Your task to perform on an android device: Add logitech g pro to the cart on amazon.com, then select checkout. Image 0: 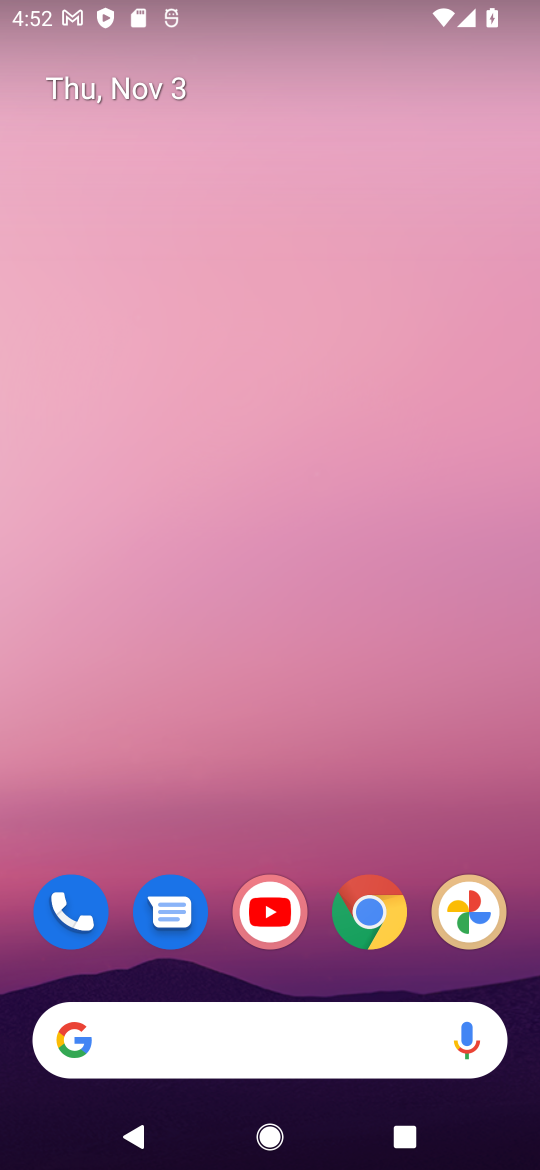
Step 0: click (385, 917)
Your task to perform on an android device: Add logitech g pro to the cart on amazon.com, then select checkout. Image 1: 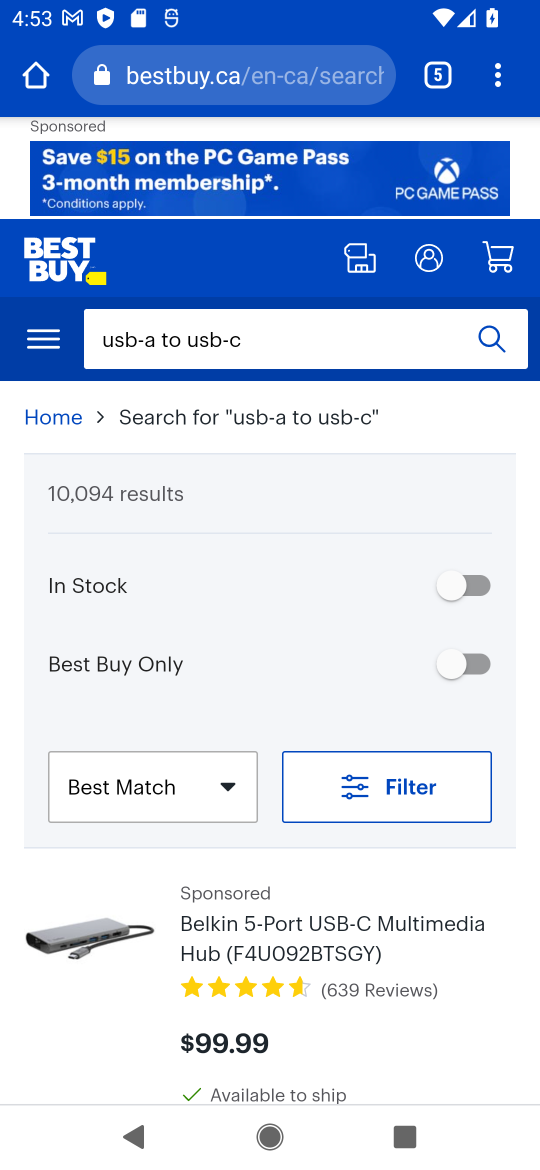
Step 1: click (427, 78)
Your task to perform on an android device: Add logitech g pro to the cart on amazon.com, then select checkout. Image 2: 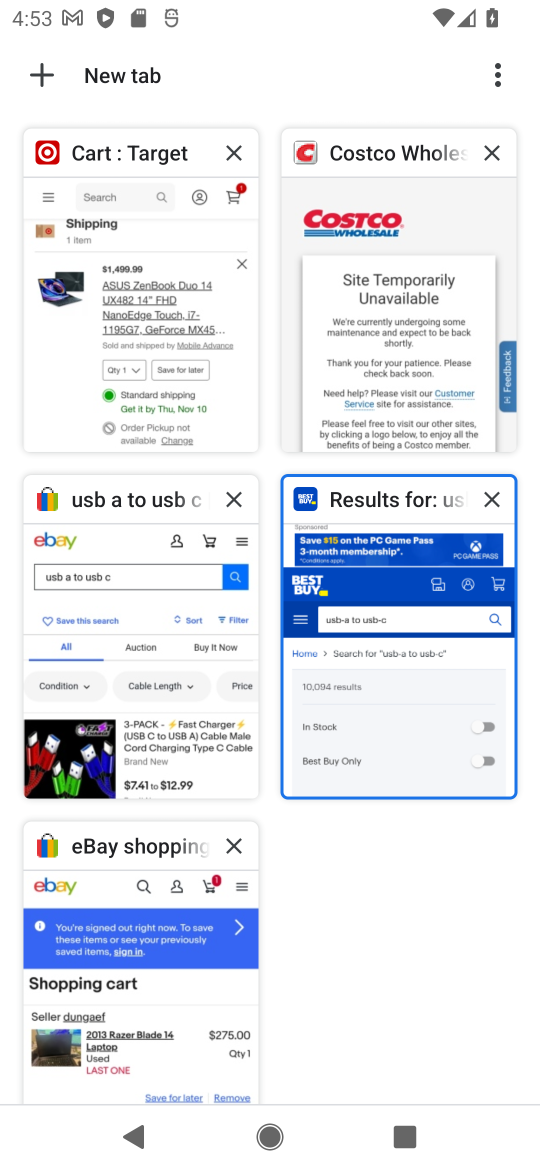
Step 2: click (49, 68)
Your task to perform on an android device: Add logitech g pro to the cart on amazon.com, then select checkout. Image 3: 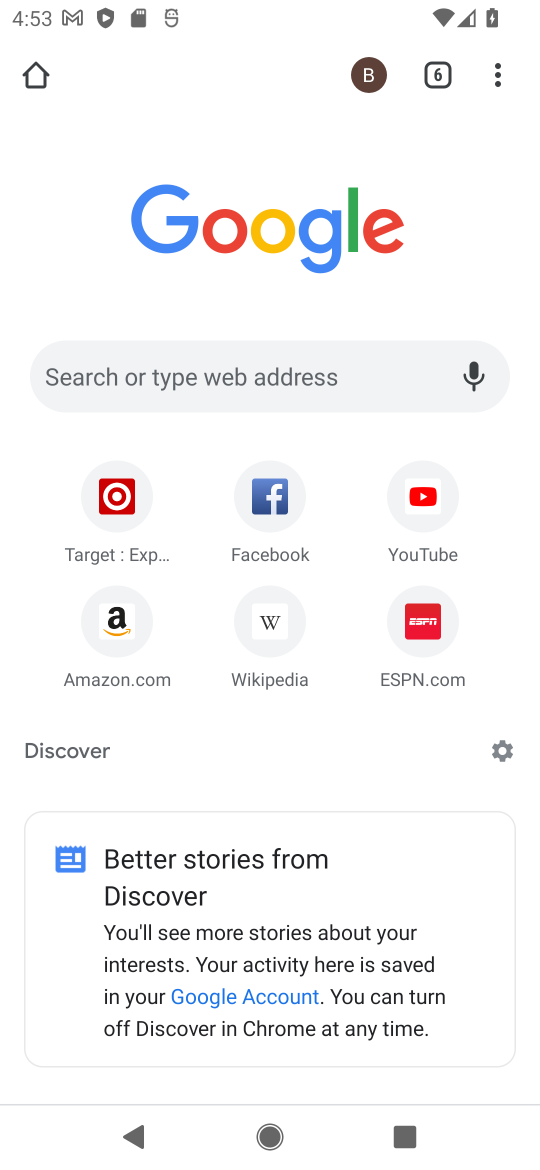
Step 3: click (205, 395)
Your task to perform on an android device: Add logitech g pro to the cart on amazon.com, then select checkout. Image 4: 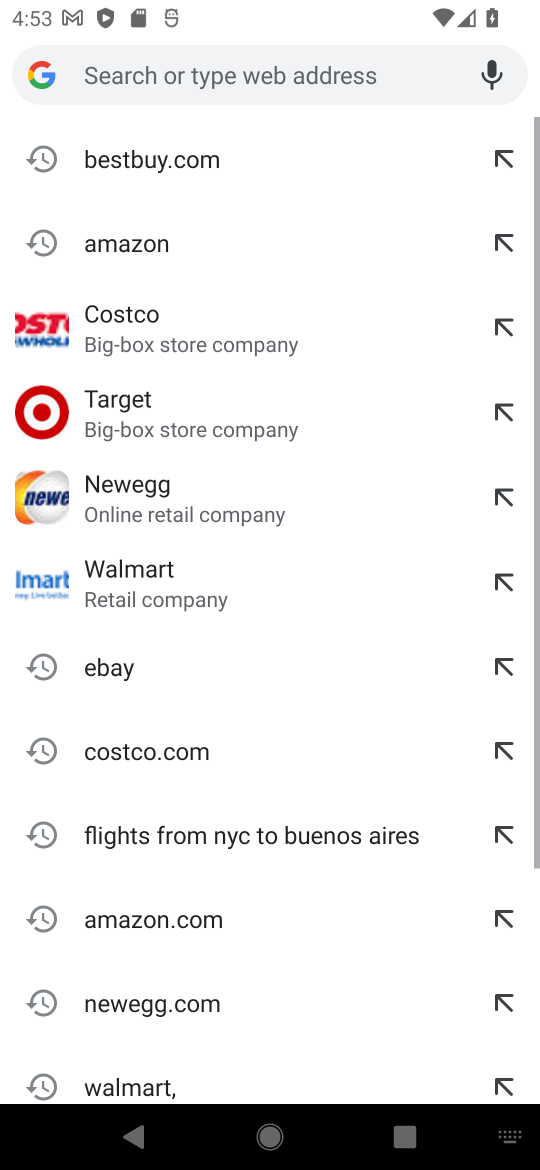
Step 4: click (185, 79)
Your task to perform on an android device: Add logitech g pro to the cart on amazon.com, then select checkout. Image 5: 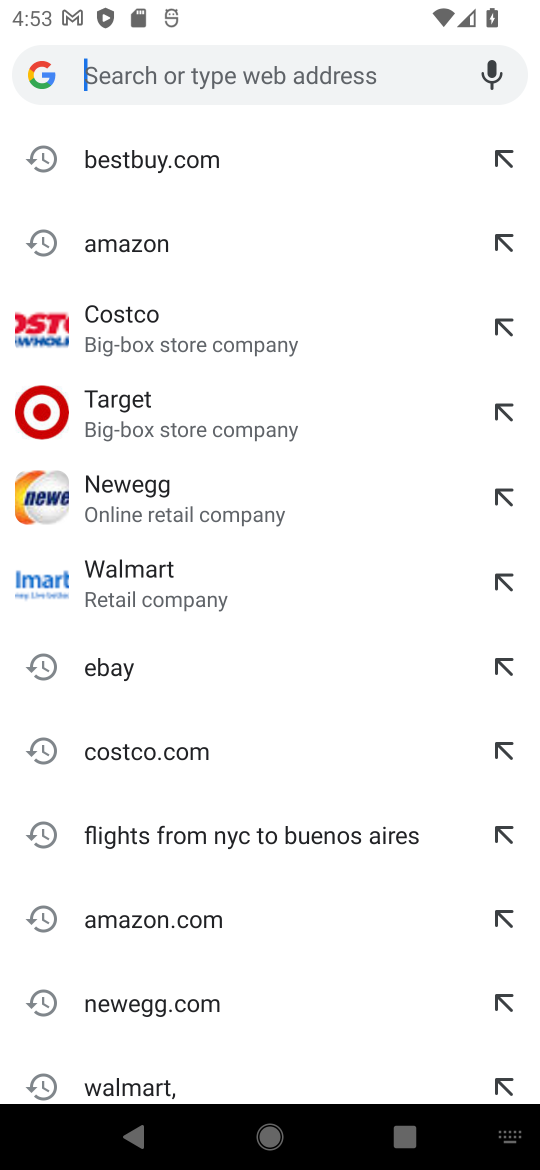
Step 5: click (217, 240)
Your task to perform on an android device: Add logitech g pro to the cart on amazon.com, then select checkout. Image 6: 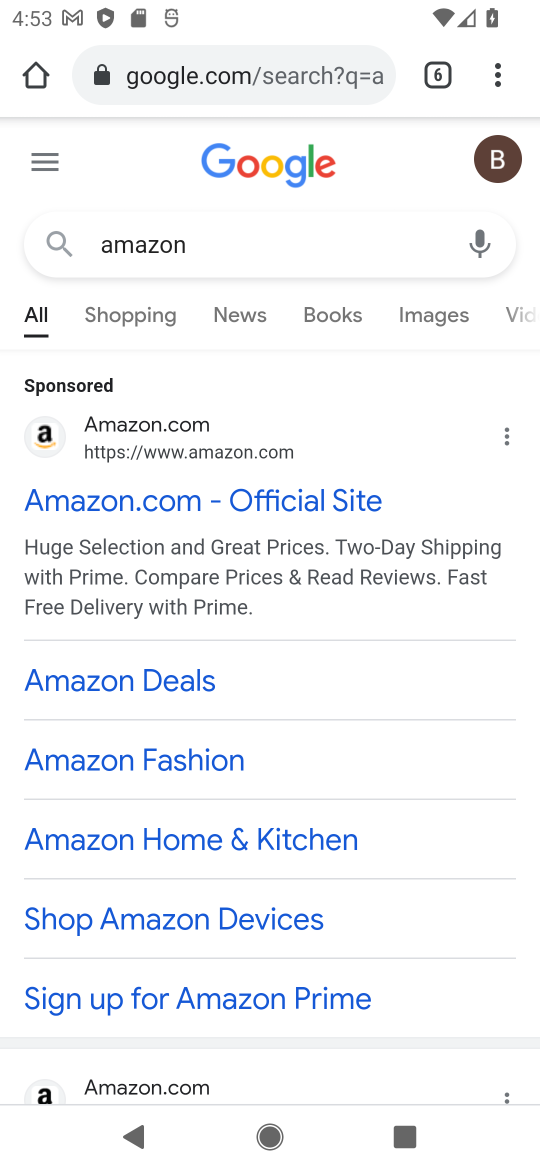
Step 6: click (125, 488)
Your task to perform on an android device: Add logitech g pro to the cart on amazon.com, then select checkout. Image 7: 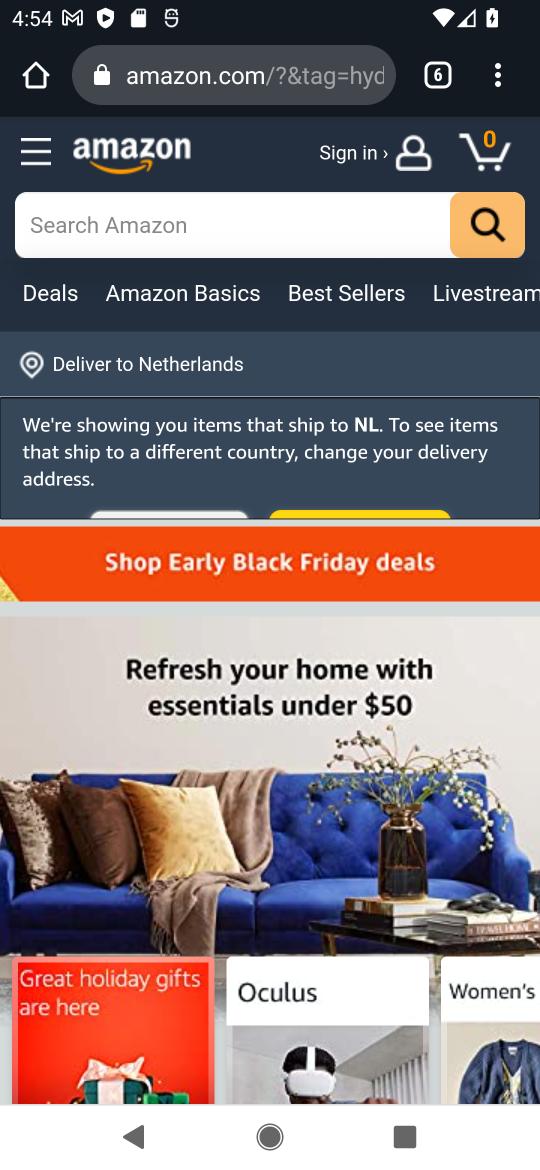
Step 7: click (236, 215)
Your task to perform on an android device: Add logitech g pro to the cart on amazon.com, then select checkout. Image 8: 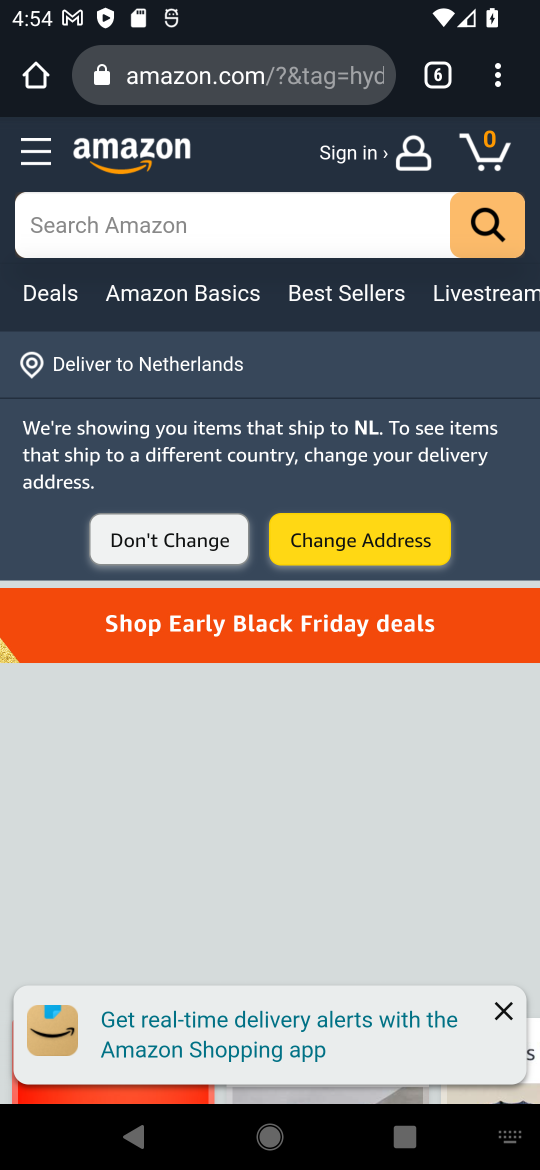
Step 8: click (170, 226)
Your task to perform on an android device: Add logitech g pro to the cart on amazon.com, then select checkout. Image 9: 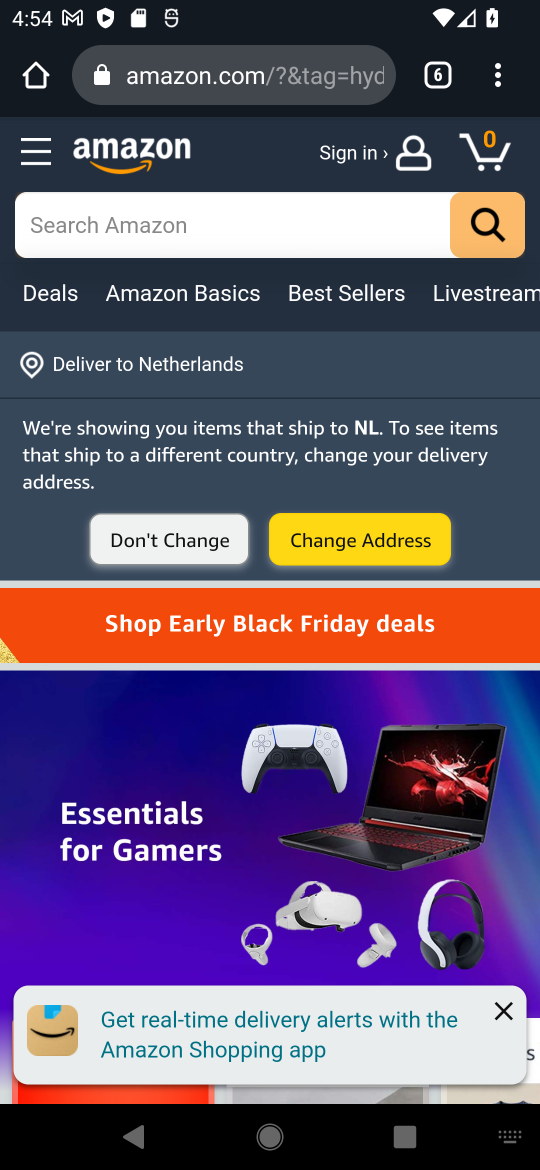
Step 9: type " logitech g pro "
Your task to perform on an android device: Add logitech g pro to the cart on amazon.com, then select checkout. Image 10: 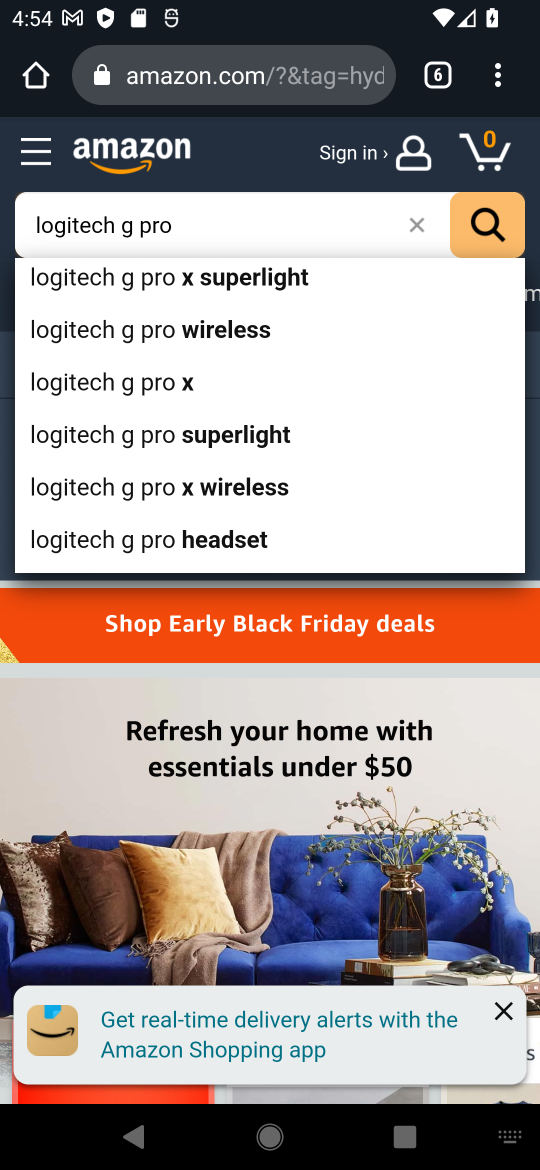
Step 10: click (198, 376)
Your task to perform on an android device: Add logitech g pro to the cart on amazon.com, then select checkout. Image 11: 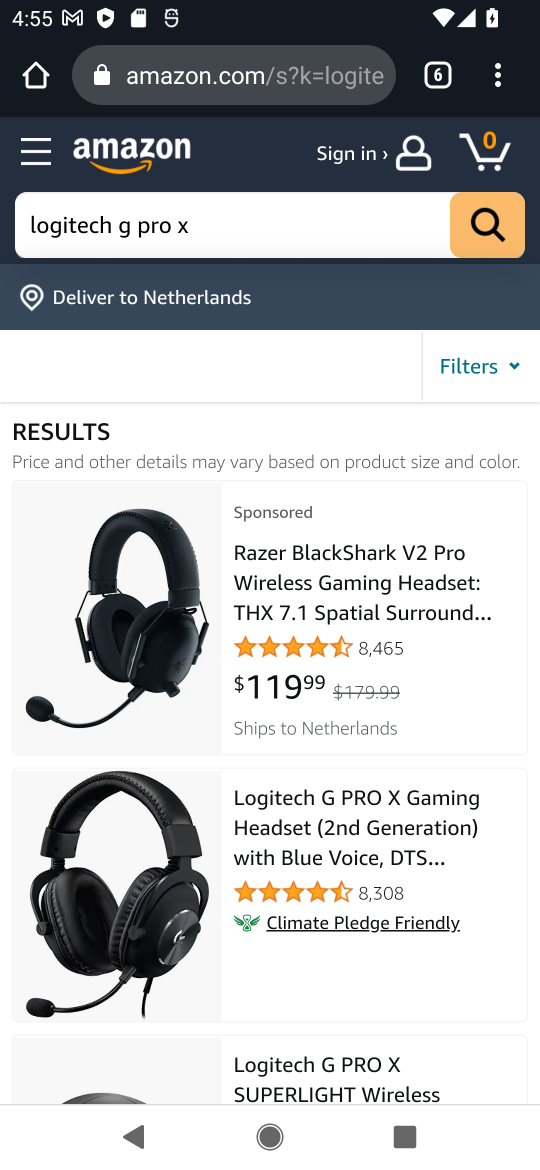
Step 11: click (191, 822)
Your task to perform on an android device: Add logitech g pro to the cart on amazon.com, then select checkout. Image 12: 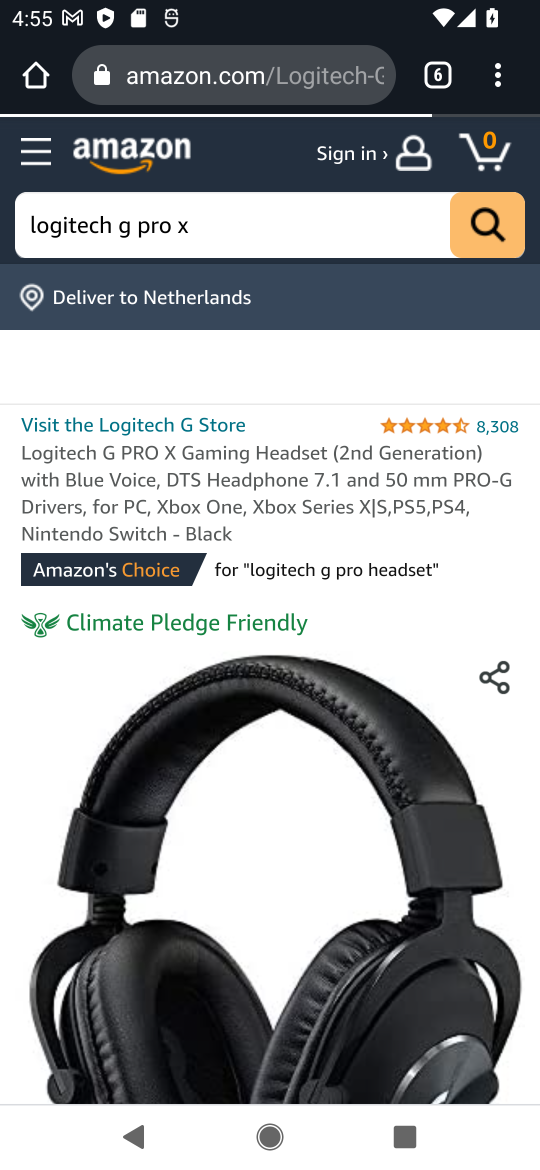
Step 12: drag from (139, 977) to (165, 360)
Your task to perform on an android device: Add logitech g pro to the cart on amazon.com, then select checkout. Image 13: 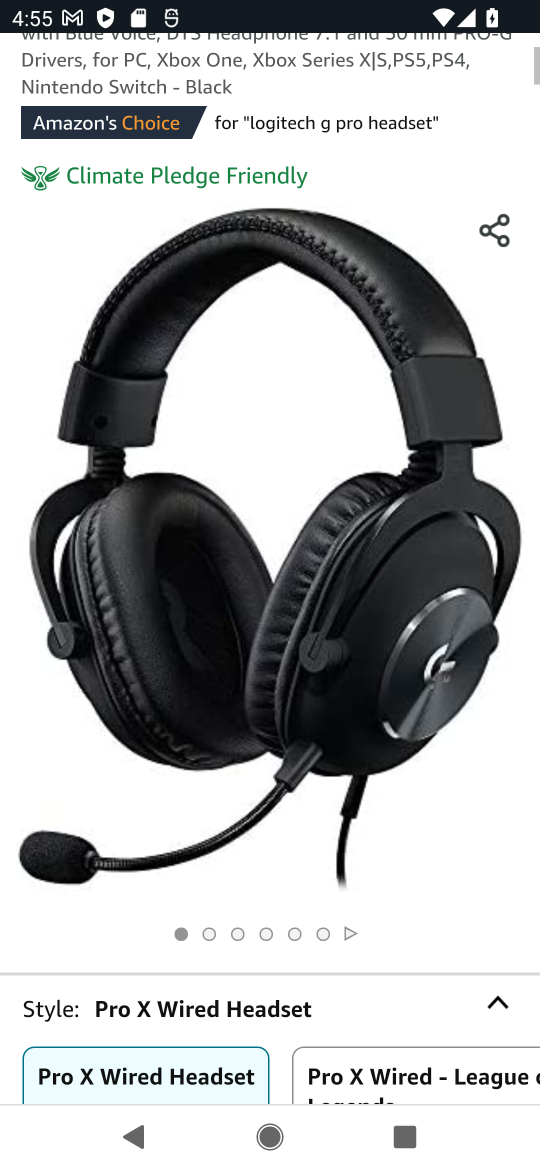
Step 13: drag from (280, 889) to (255, 230)
Your task to perform on an android device: Add logitech g pro to the cart on amazon.com, then select checkout. Image 14: 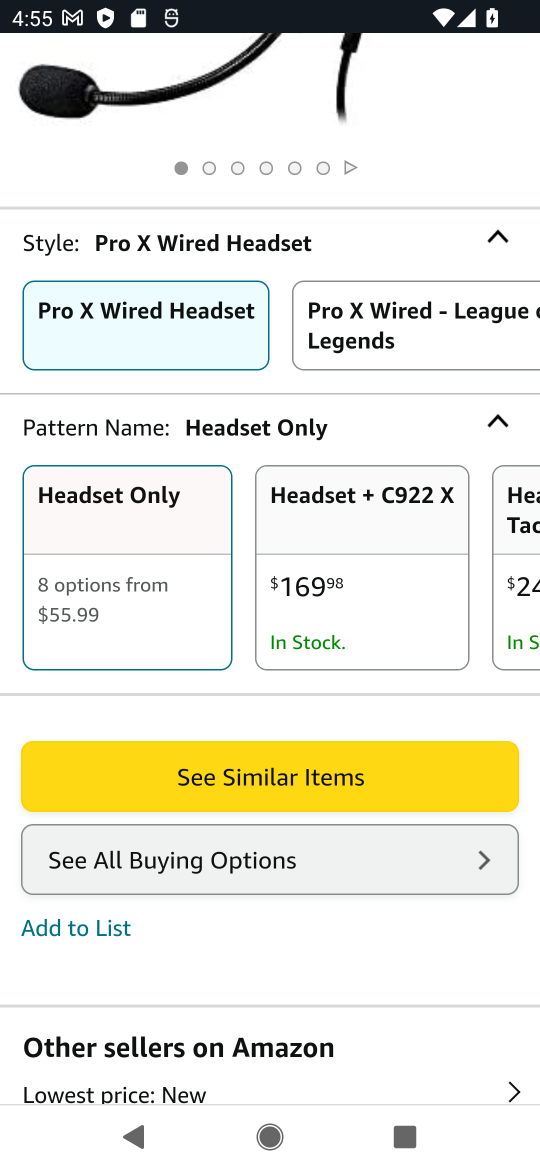
Step 14: click (350, 507)
Your task to perform on an android device: Add logitech g pro to the cart on amazon.com, then select checkout. Image 15: 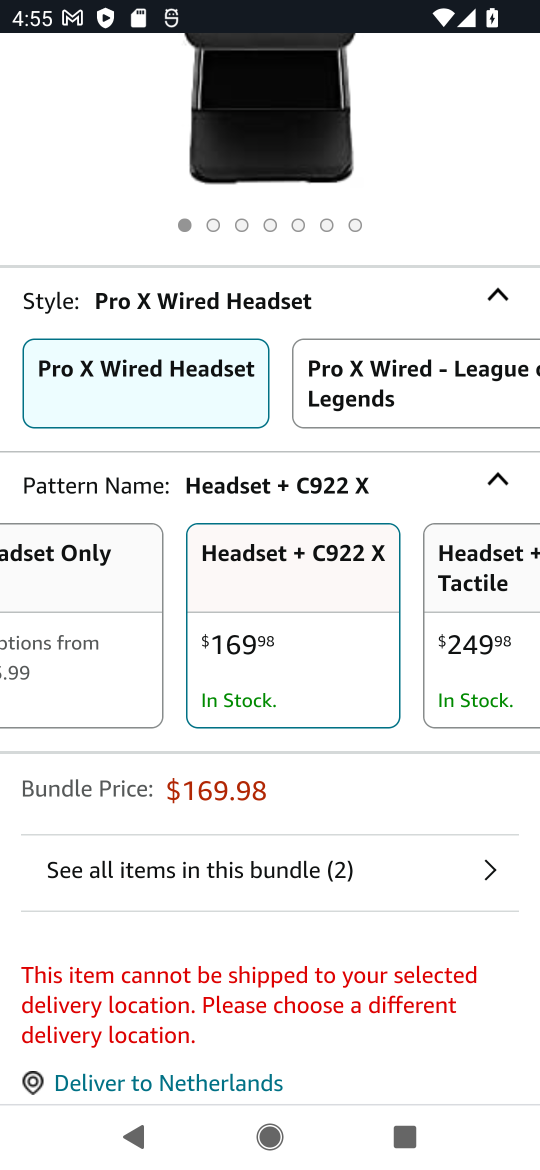
Step 15: drag from (312, 1000) to (318, 535)
Your task to perform on an android device: Add logitech g pro to the cart on amazon.com, then select checkout. Image 16: 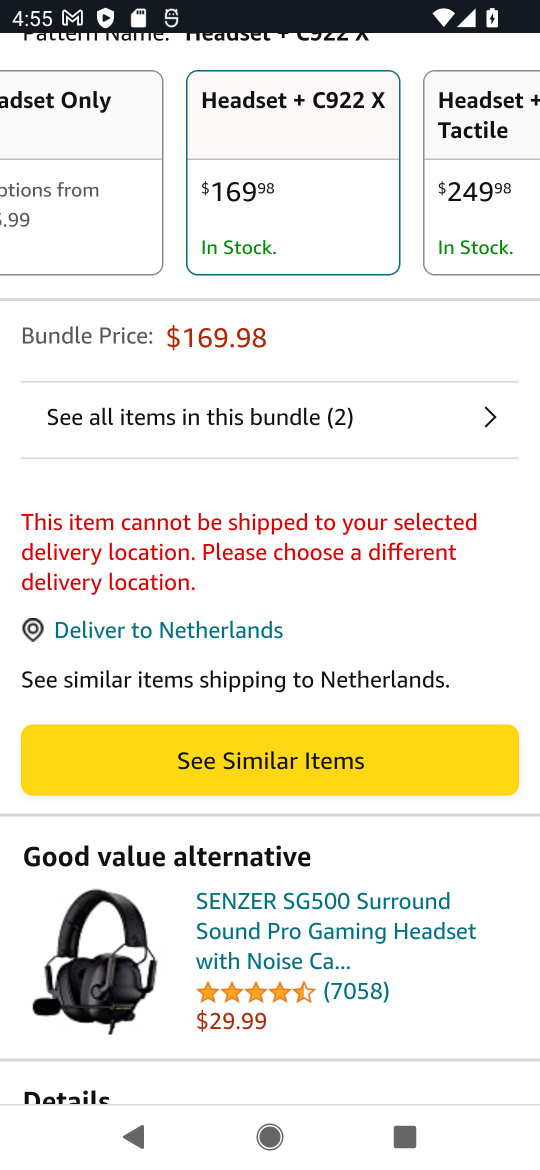
Step 16: click (455, 194)
Your task to perform on an android device: Add logitech g pro to the cart on amazon.com, then select checkout. Image 17: 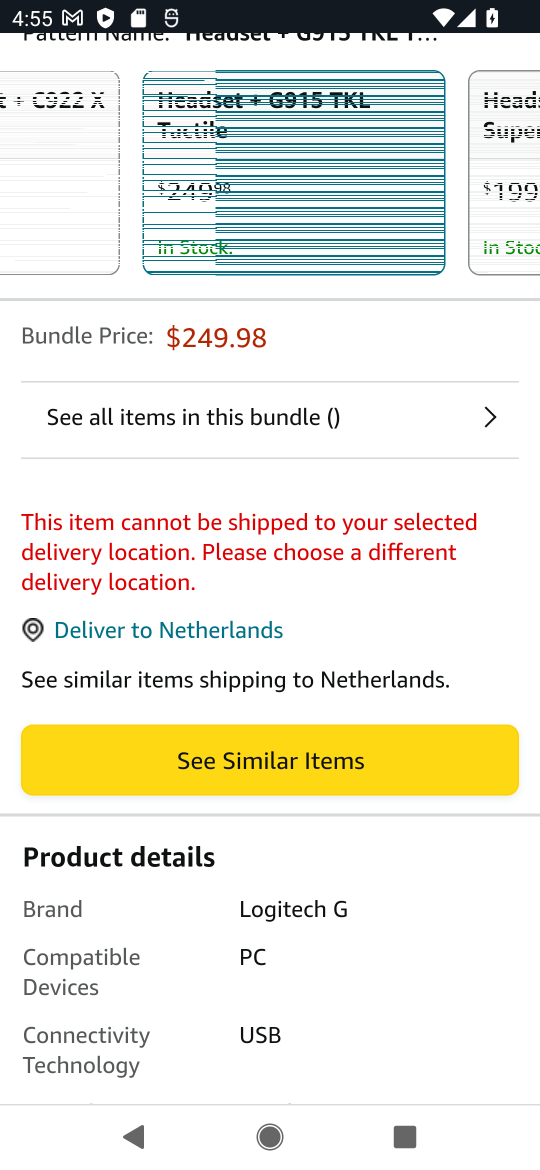
Step 17: drag from (363, 420) to (389, 1163)
Your task to perform on an android device: Add logitech g pro to the cart on amazon.com, then select checkout. Image 18: 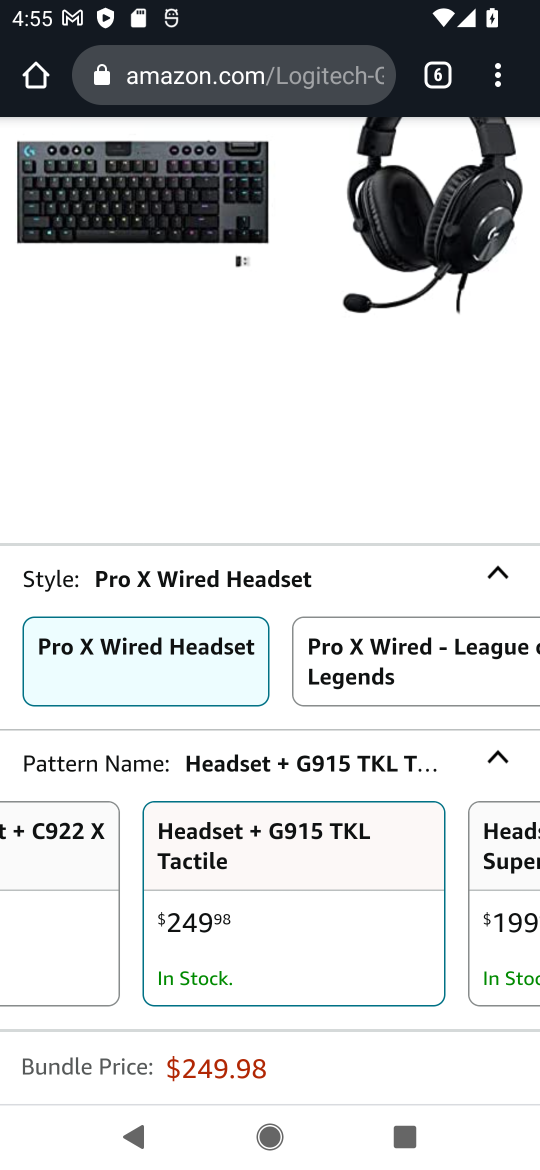
Step 18: click (390, 649)
Your task to perform on an android device: Add logitech g pro to the cart on amazon.com, then select checkout. Image 19: 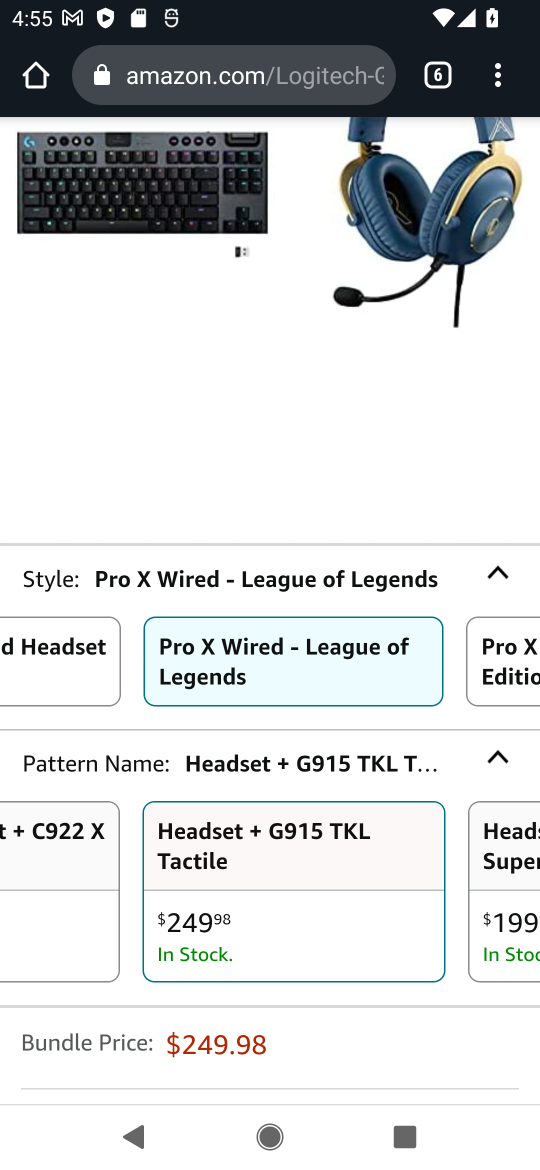
Step 19: task complete